Your task to perform on an android device: Do I have any events today? Image 0: 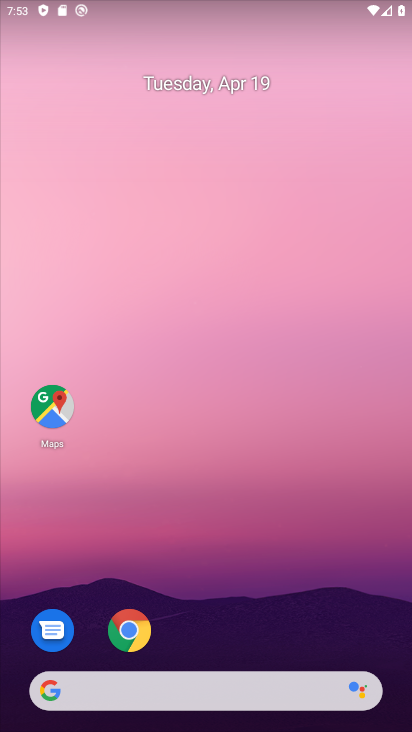
Step 0: click (256, 152)
Your task to perform on an android device: Do I have any events today? Image 1: 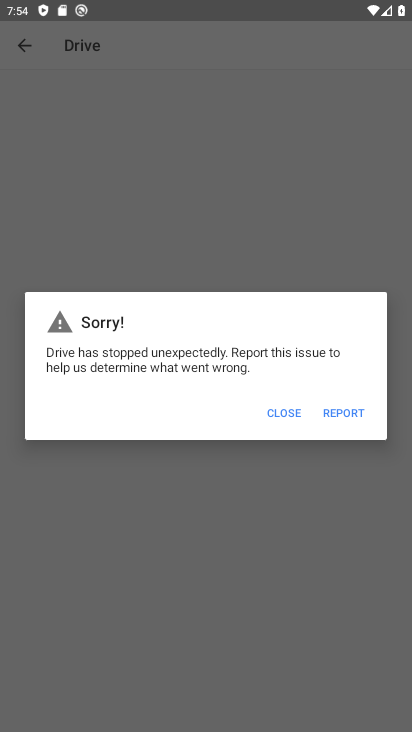
Step 1: press home button
Your task to perform on an android device: Do I have any events today? Image 2: 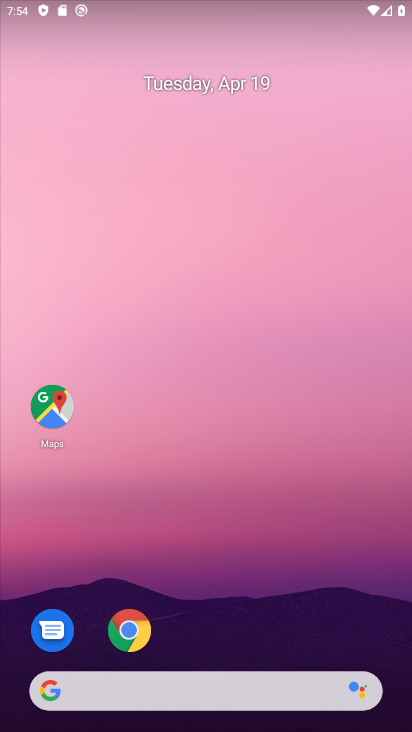
Step 2: click (285, 21)
Your task to perform on an android device: Do I have any events today? Image 3: 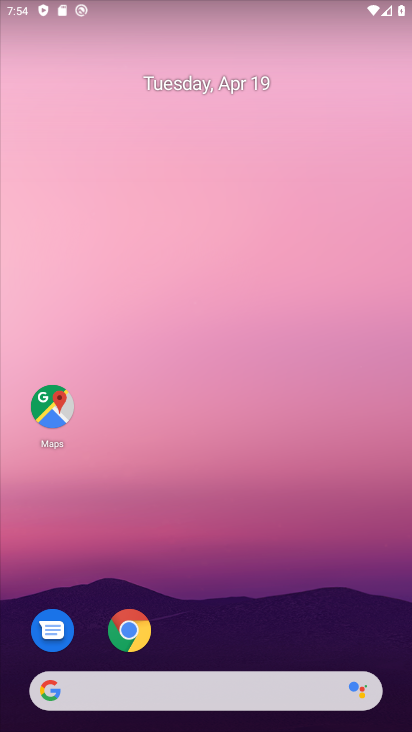
Step 3: drag from (209, 545) to (274, 21)
Your task to perform on an android device: Do I have any events today? Image 4: 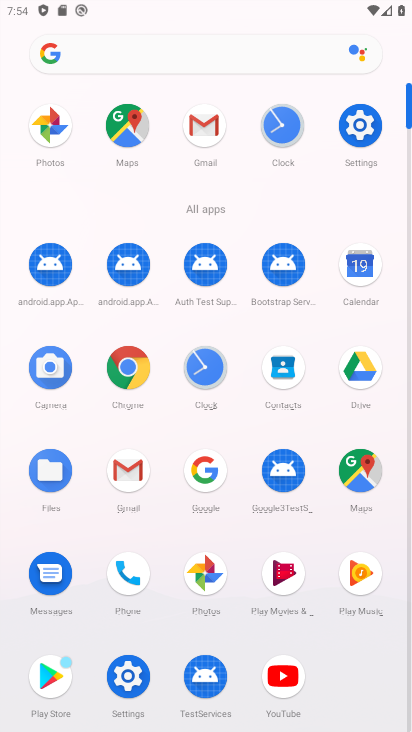
Step 4: click (351, 260)
Your task to perform on an android device: Do I have any events today? Image 5: 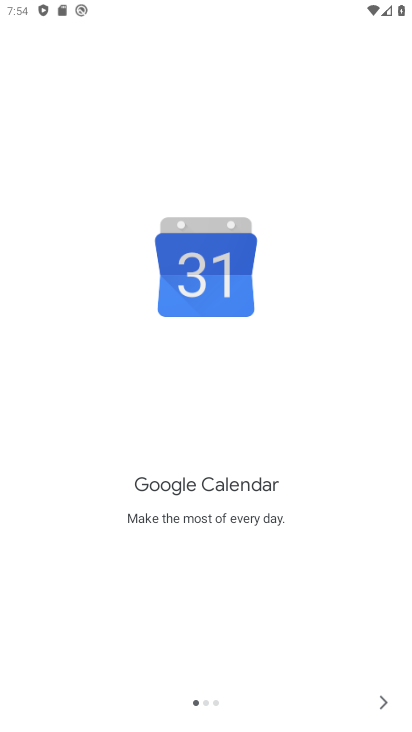
Step 5: click (378, 706)
Your task to perform on an android device: Do I have any events today? Image 6: 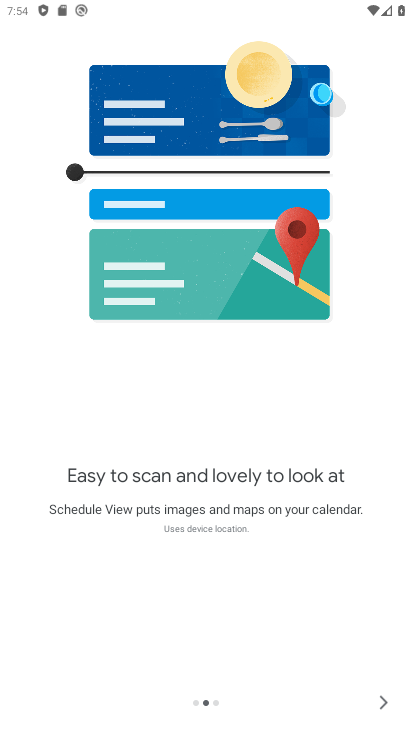
Step 6: click (378, 706)
Your task to perform on an android device: Do I have any events today? Image 7: 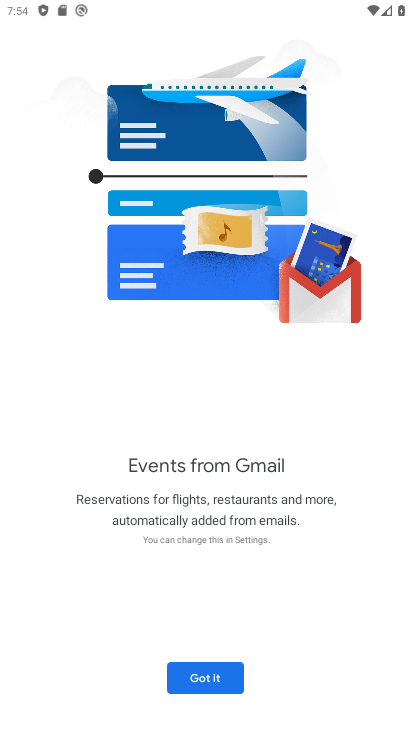
Step 7: click (378, 706)
Your task to perform on an android device: Do I have any events today? Image 8: 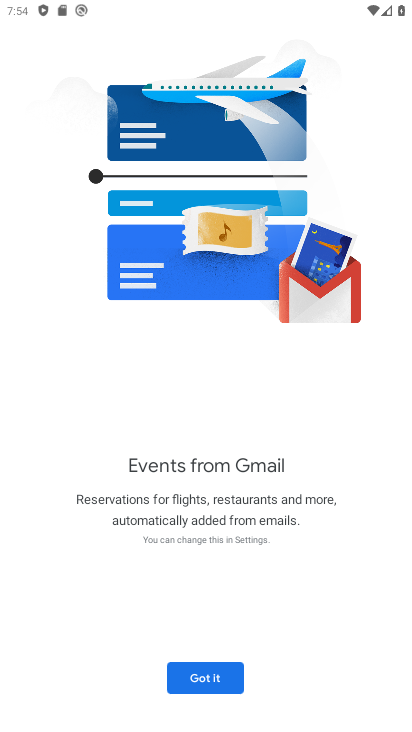
Step 8: click (378, 706)
Your task to perform on an android device: Do I have any events today? Image 9: 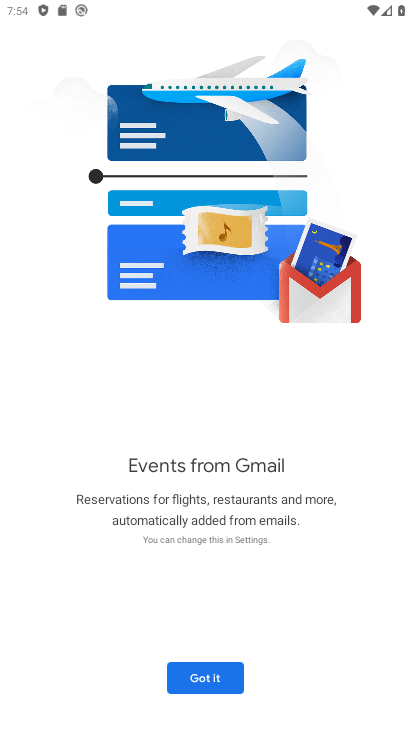
Step 9: click (217, 668)
Your task to perform on an android device: Do I have any events today? Image 10: 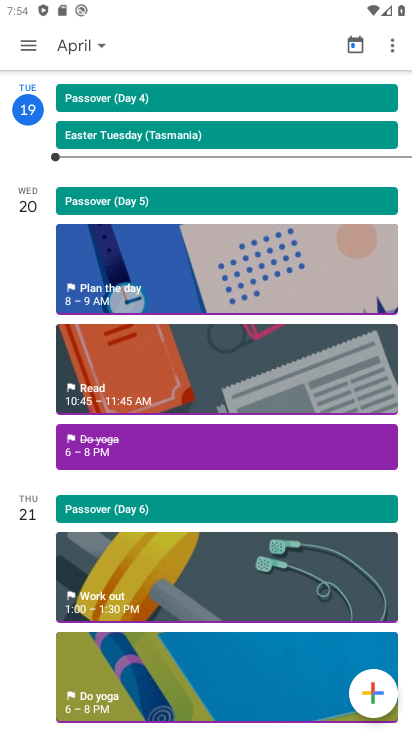
Step 10: click (91, 102)
Your task to perform on an android device: Do I have any events today? Image 11: 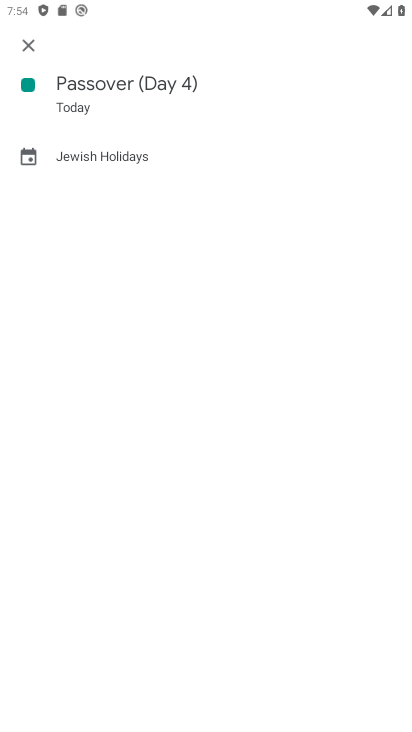
Step 11: click (26, 42)
Your task to perform on an android device: Do I have any events today? Image 12: 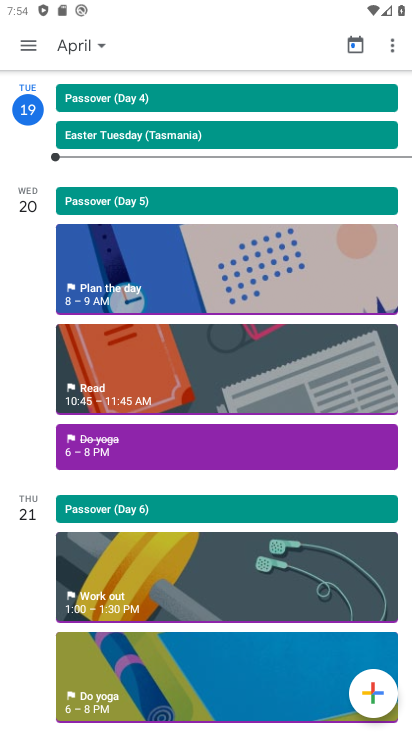
Step 12: click (138, 147)
Your task to perform on an android device: Do I have any events today? Image 13: 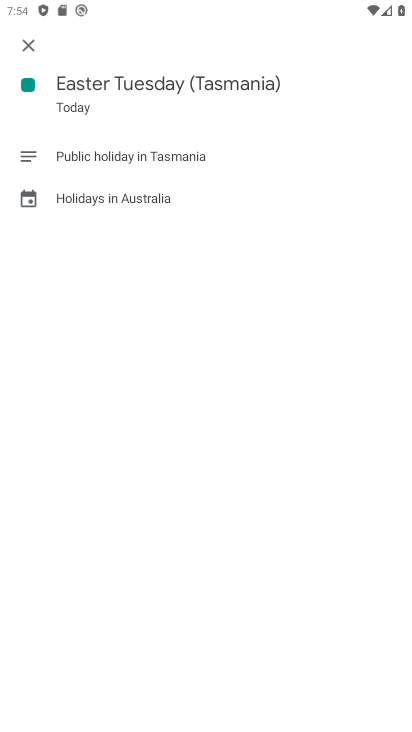
Step 13: click (28, 47)
Your task to perform on an android device: Do I have any events today? Image 14: 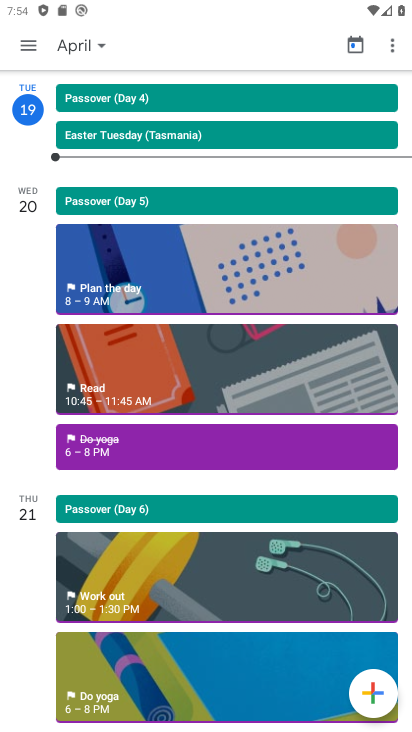
Step 14: task complete